Your task to perform on an android device: Open settings Image 0: 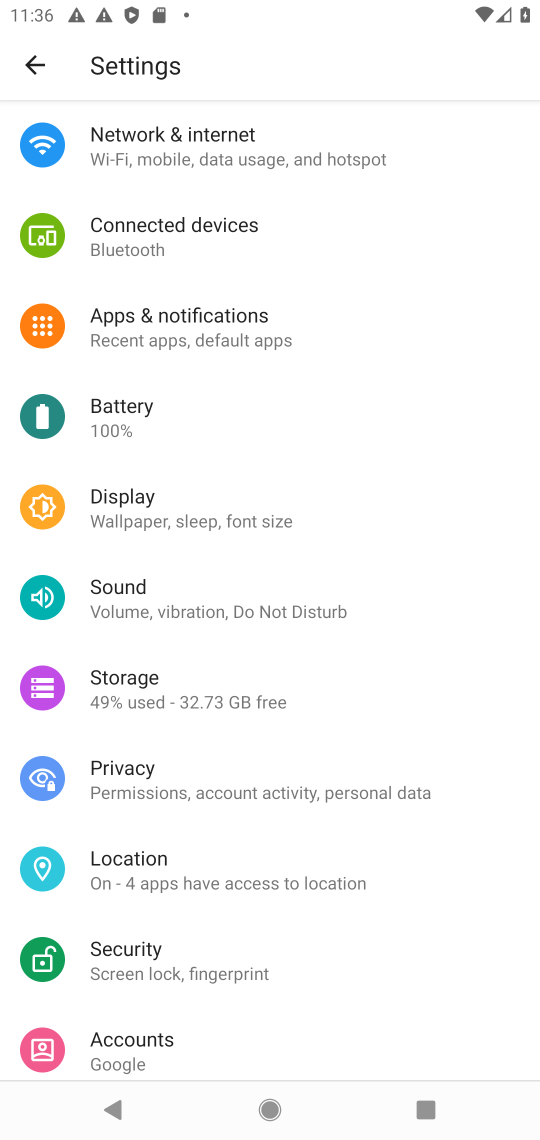
Step 0: drag from (273, 1020) to (225, 364)
Your task to perform on an android device: Open settings Image 1: 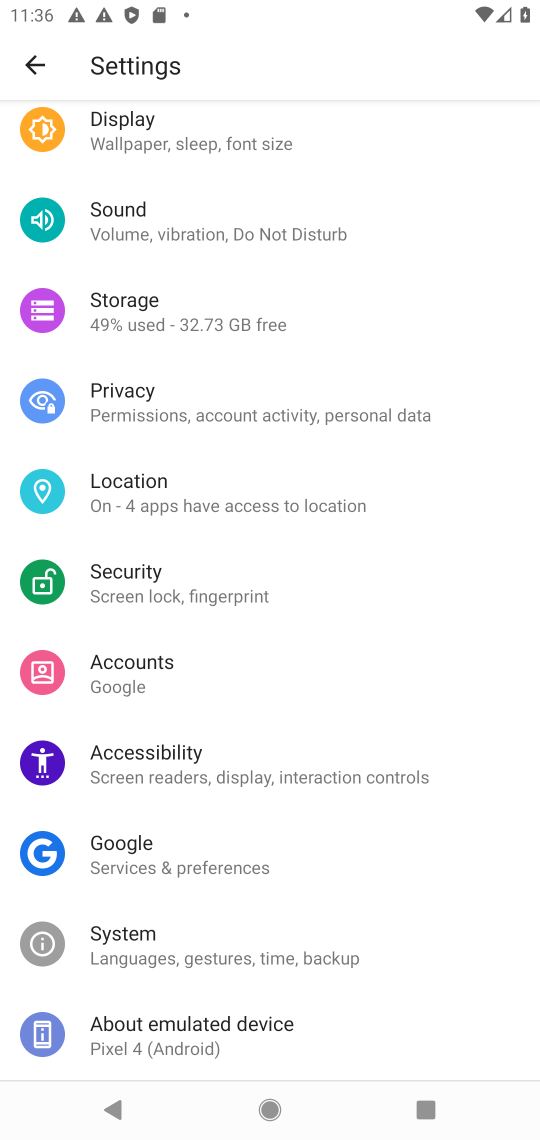
Step 1: task complete